Your task to perform on an android device: Check the weather Image 0: 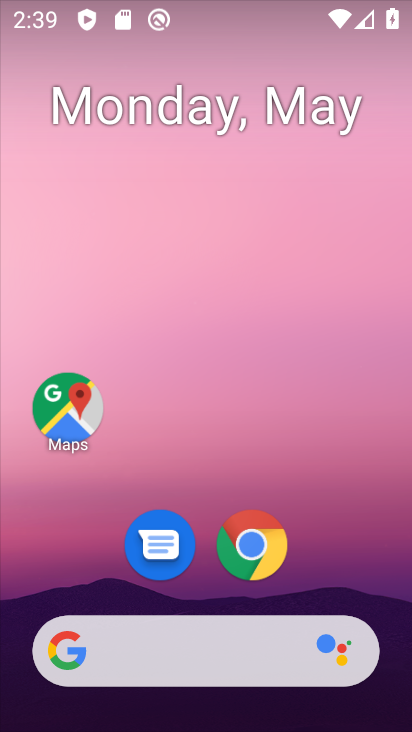
Step 0: click (187, 666)
Your task to perform on an android device: Check the weather Image 1: 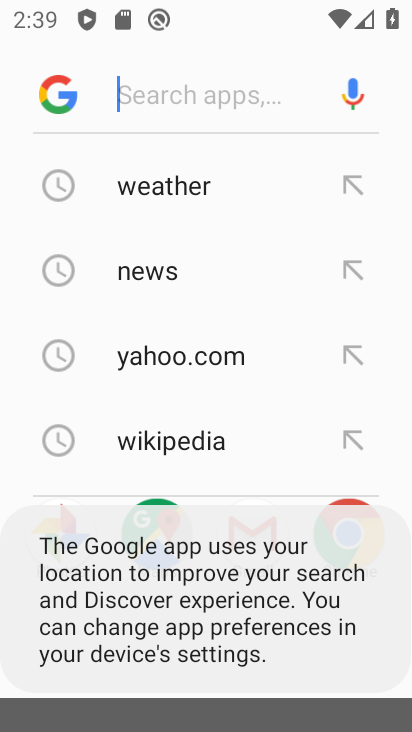
Step 1: click (150, 165)
Your task to perform on an android device: Check the weather Image 2: 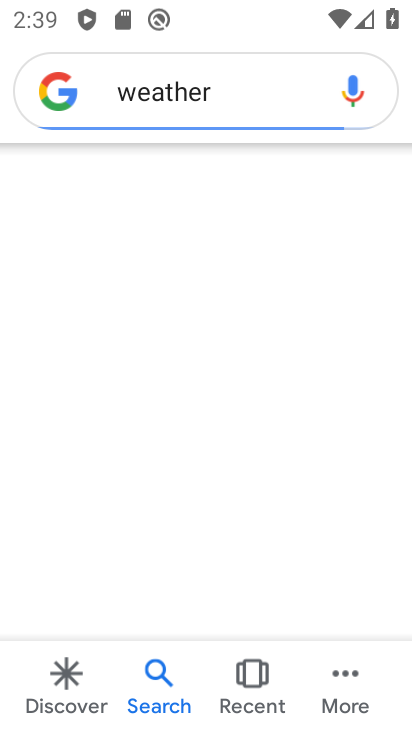
Step 2: task complete